Your task to perform on an android device: turn on data saver in the chrome app Image 0: 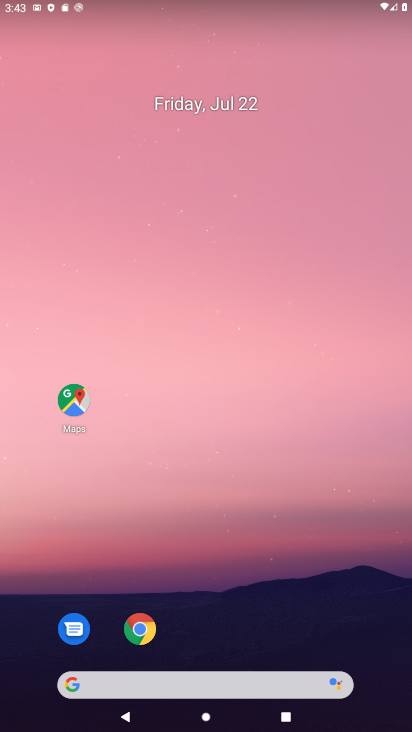
Step 0: drag from (327, 588) to (312, 123)
Your task to perform on an android device: turn on data saver in the chrome app Image 1: 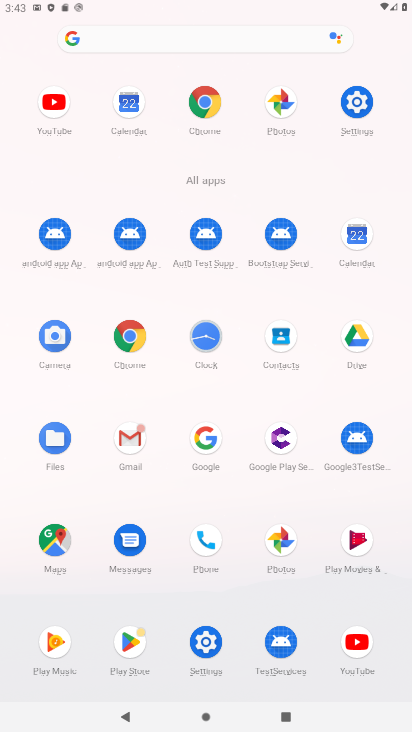
Step 1: click (127, 332)
Your task to perform on an android device: turn on data saver in the chrome app Image 2: 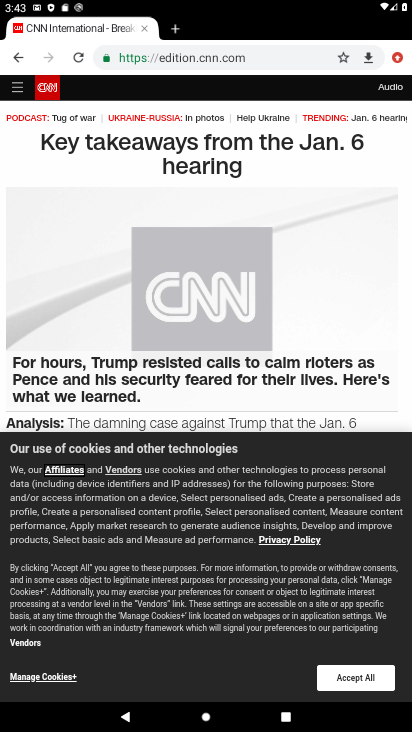
Step 2: drag from (408, 50) to (281, 385)
Your task to perform on an android device: turn on data saver in the chrome app Image 3: 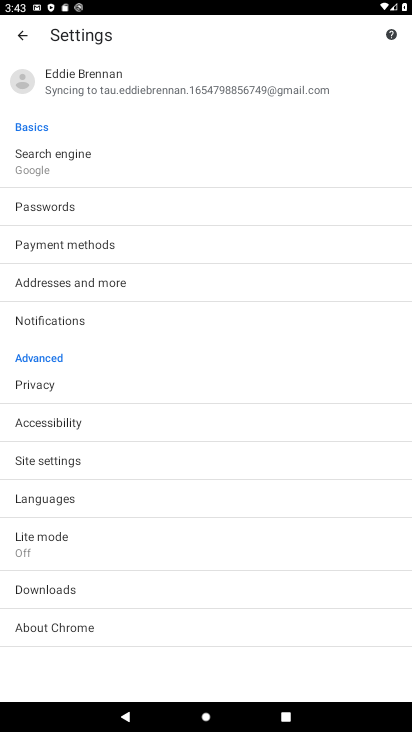
Step 3: click (44, 549)
Your task to perform on an android device: turn on data saver in the chrome app Image 4: 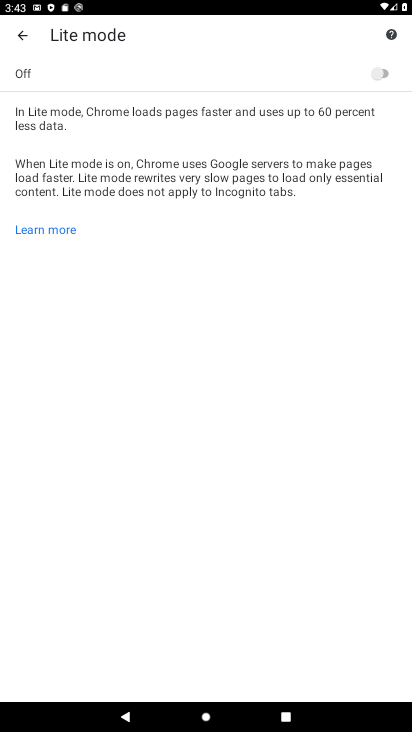
Step 4: click (390, 69)
Your task to perform on an android device: turn on data saver in the chrome app Image 5: 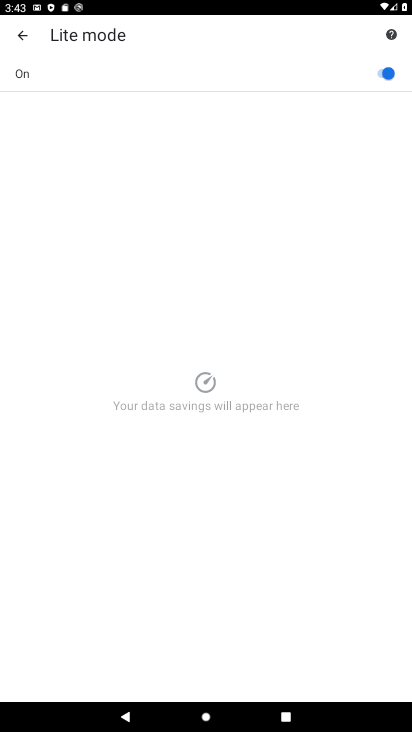
Step 5: task complete